Your task to perform on an android device: stop showing notifications on the lock screen Image 0: 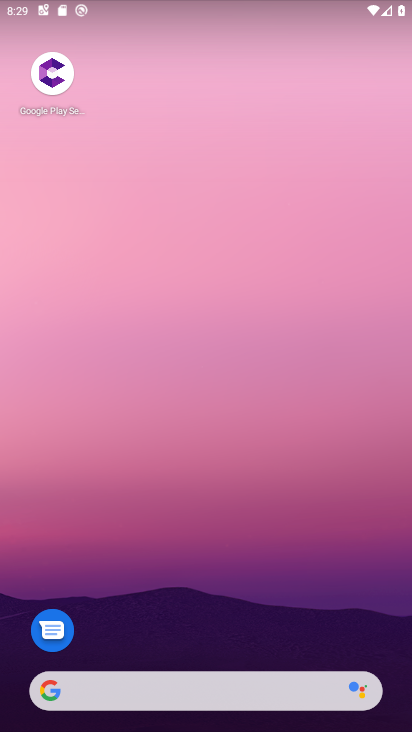
Step 0: drag from (184, 554) to (249, 172)
Your task to perform on an android device: stop showing notifications on the lock screen Image 1: 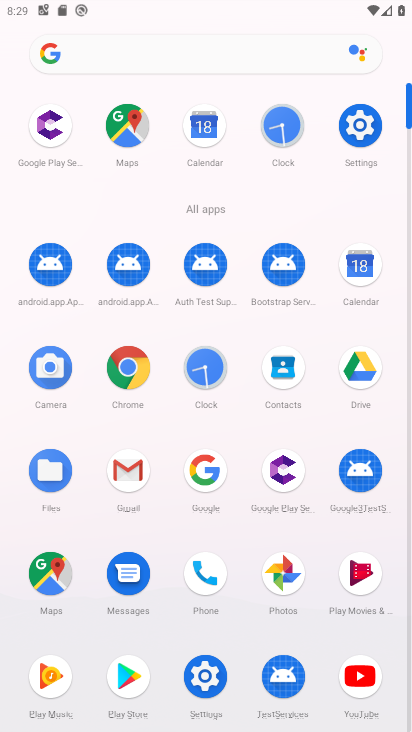
Step 1: click (207, 672)
Your task to perform on an android device: stop showing notifications on the lock screen Image 2: 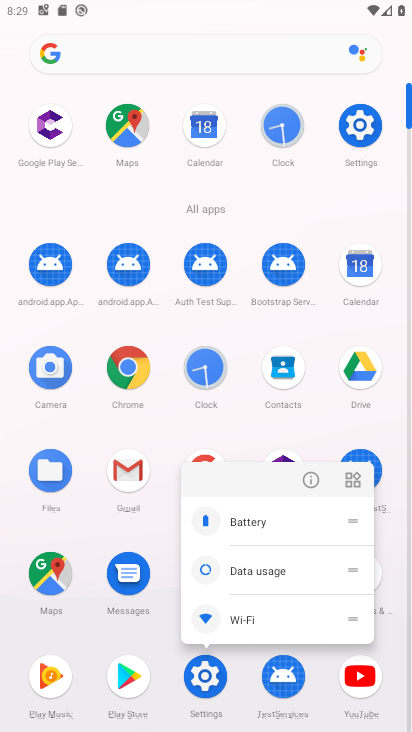
Step 2: click (199, 690)
Your task to perform on an android device: stop showing notifications on the lock screen Image 3: 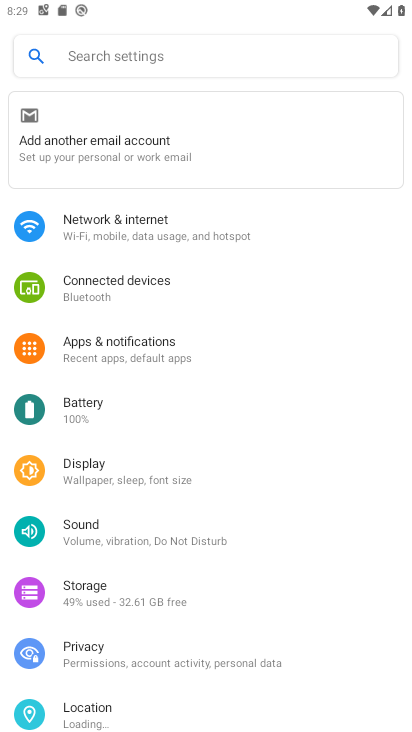
Step 3: click (180, 353)
Your task to perform on an android device: stop showing notifications on the lock screen Image 4: 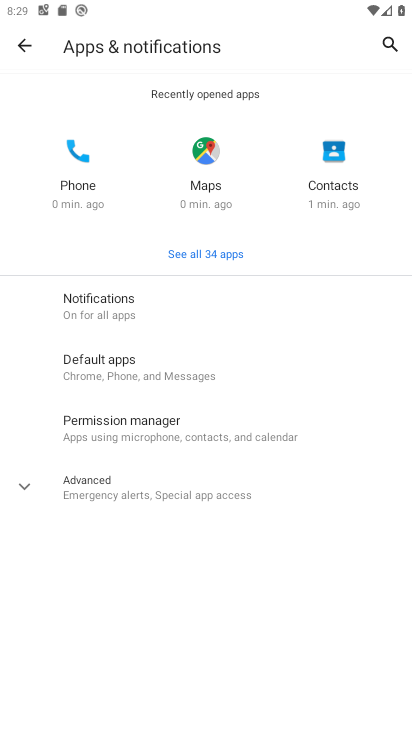
Step 4: click (127, 319)
Your task to perform on an android device: stop showing notifications on the lock screen Image 5: 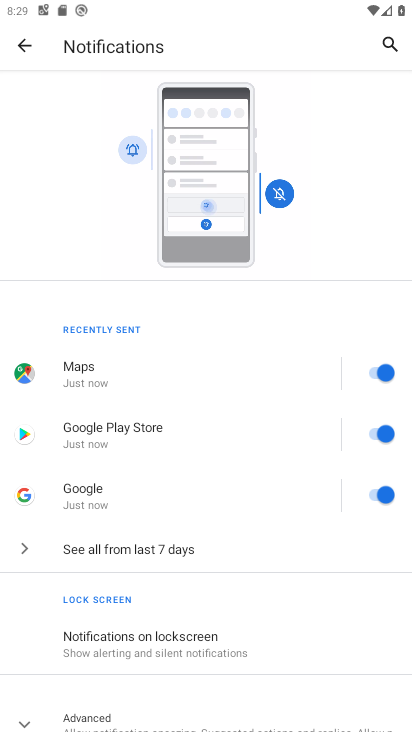
Step 5: drag from (170, 528) to (195, 414)
Your task to perform on an android device: stop showing notifications on the lock screen Image 6: 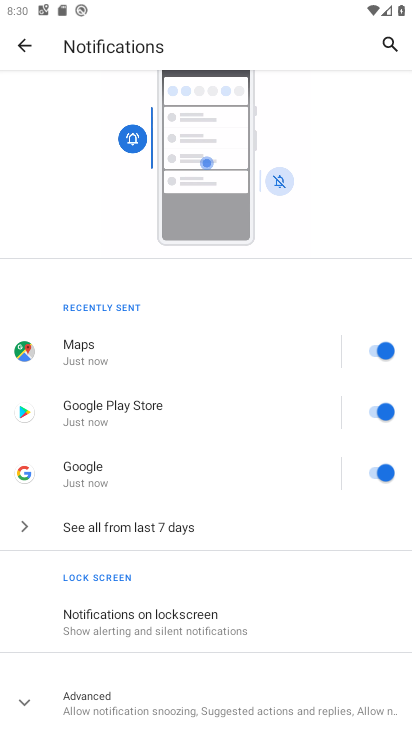
Step 6: click (174, 610)
Your task to perform on an android device: stop showing notifications on the lock screen Image 7: 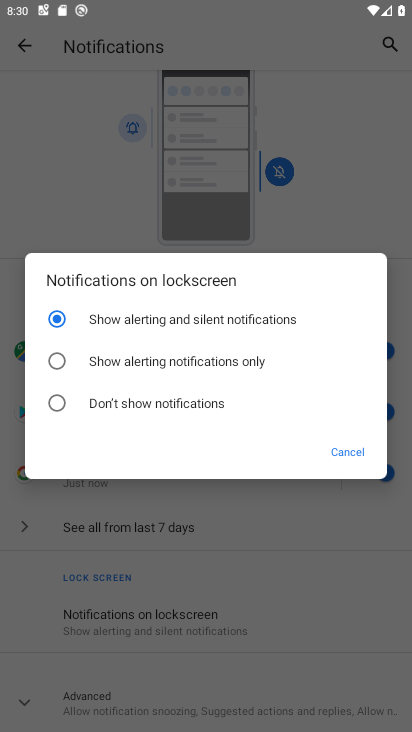
Step 7: click (201, 414)
Your task to perform on an android device: stop showing notifications on the lock screen Image 8: 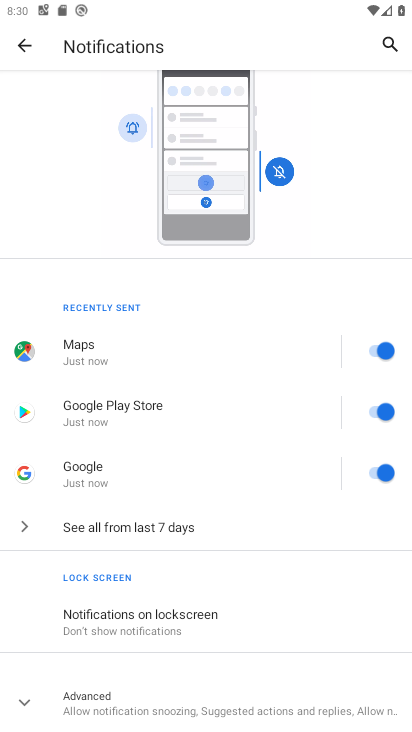
Step 8: task complete